Your task to perform on an android device: turn off data saver in the chrome app Image 0: 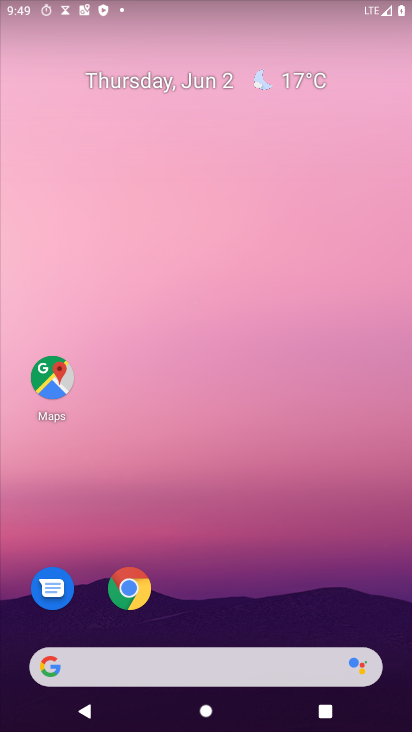
Step 0: click (131, 587)
Your task to perform on an android device: turn off data saver in the chrome app Image 1: 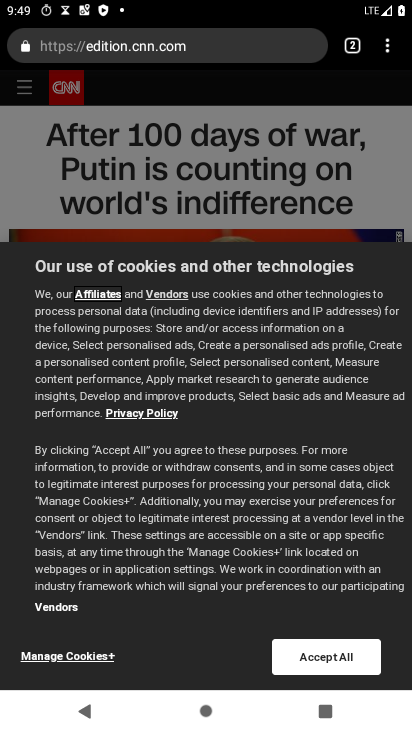
Step 1: drag from (390, 41) to (238, 506)
Your task to perform on an android device: turn off data saver in the chrome app Image 2: 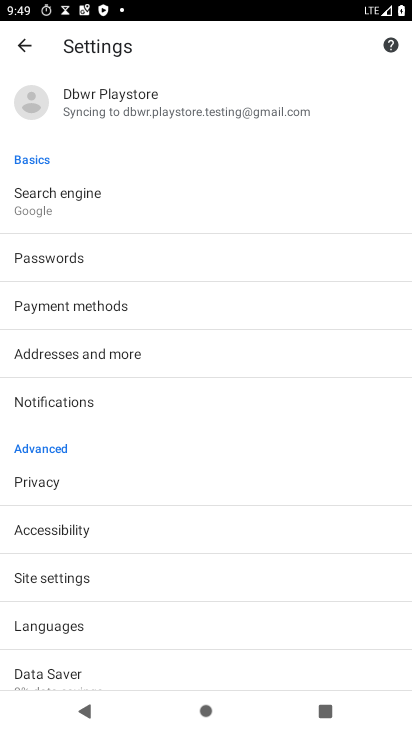
Step 2: click (49, 667)
Your task to perform on an android device: turn off data saver in the chrome app Image 3: 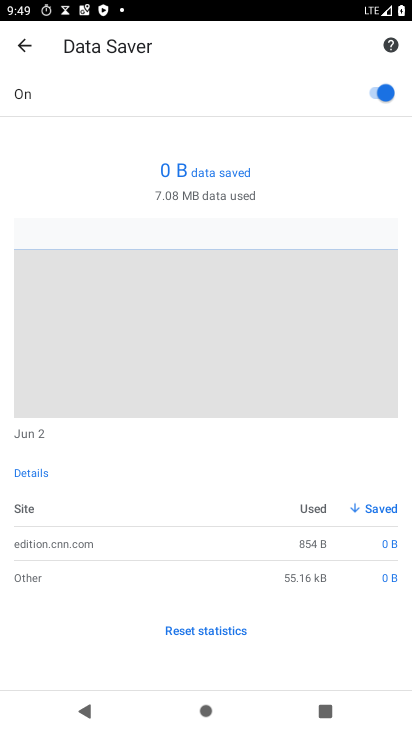
Step 3: click (388, 90)
Your task to perform on an android device: turn off data saver in the chrome app Image 4: 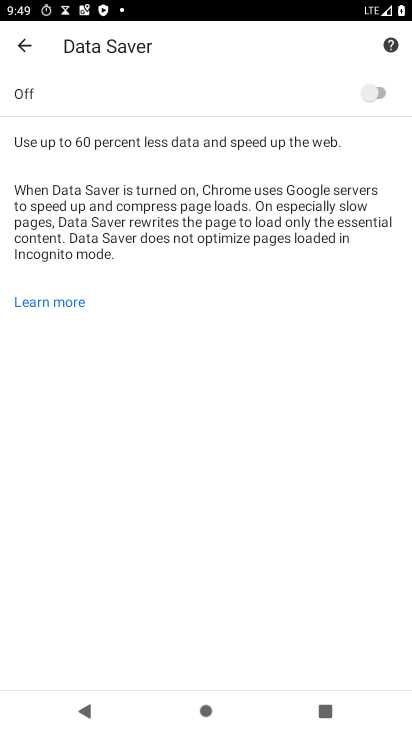
Step 4: task complete